Your task to perform on an android device: open a bookmark in the chrome app Image 0: 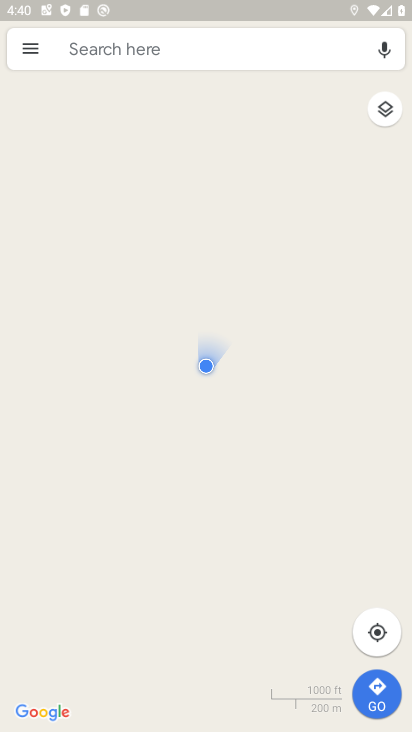
Step 0: press back button
Your task to perform on an android device: open a bookmark in the chrome app Image 1: 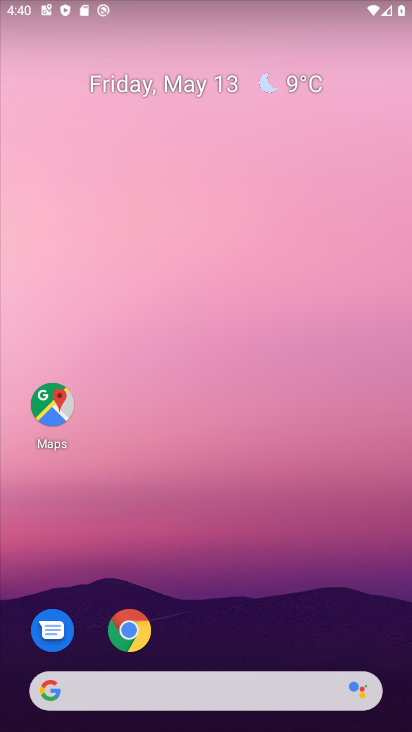
Step 1: drag from (245, 535) to (189, 20)
Your task to perform on an android device: open a bookmark in the chrome app Image 2: 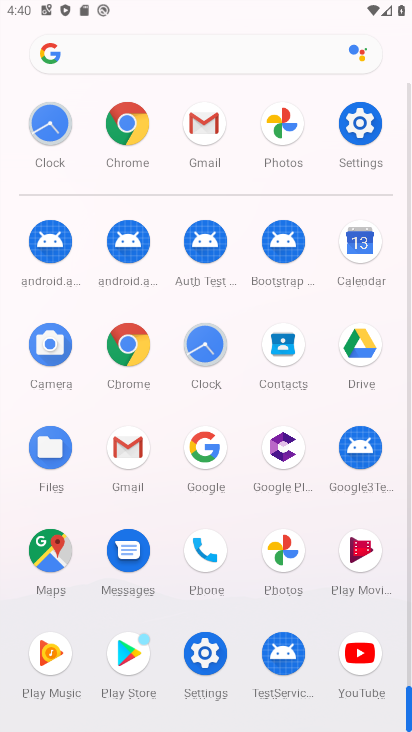
Step 2: click (128, 119)
Your task to perform on an android device: open a bookmark in the chrome app Image 3: 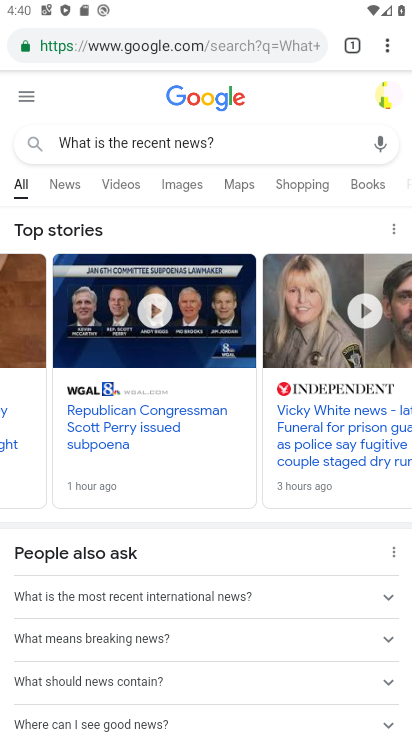
Step 3: task complete